Your task to perform on an android device: Go to Amazon Image 0: 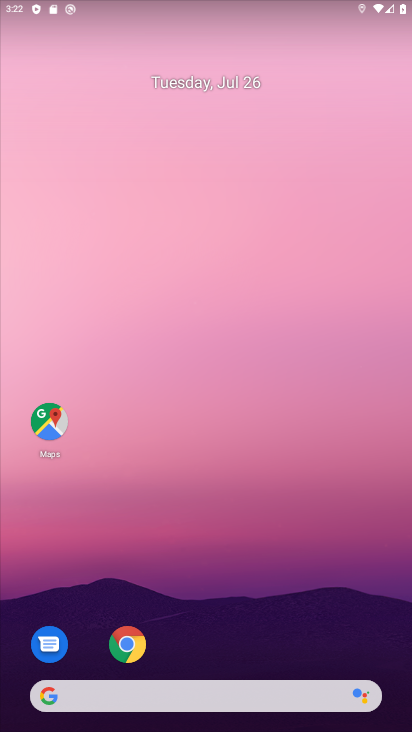
Step 0: click (301, 115)
Your task to perform on an android device: Go to Amazon Image 1: 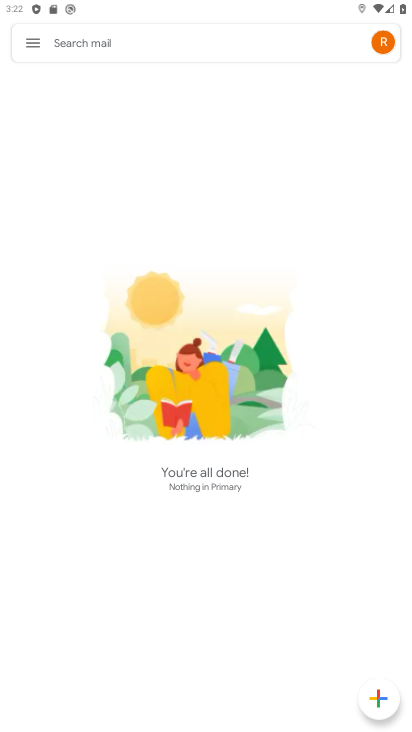
Step 1: drag from (193, 577) to (249, 243)
Your task to perform on an android device: Go to Amazon Image 2: 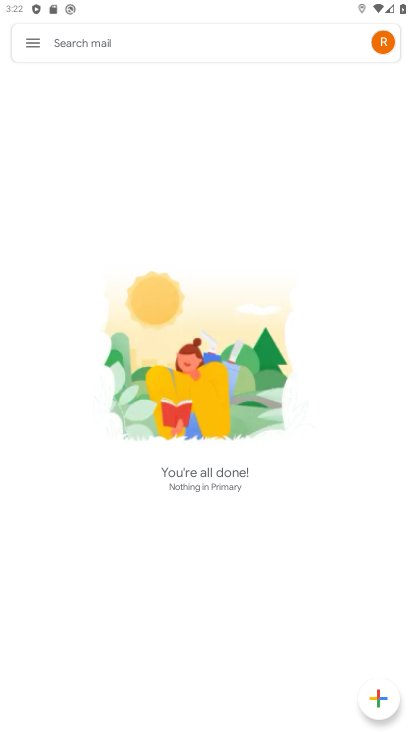
Step 2: press home button
Your task to perform on an android device: Go to Amazon Image 3: 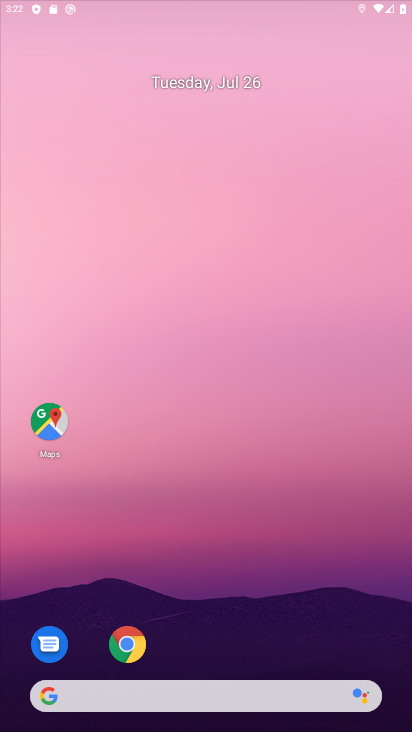
Step 3: drag from (197, 558) to (356, 11)
Your task to perform on an android device: Go to Amazon Image 4: 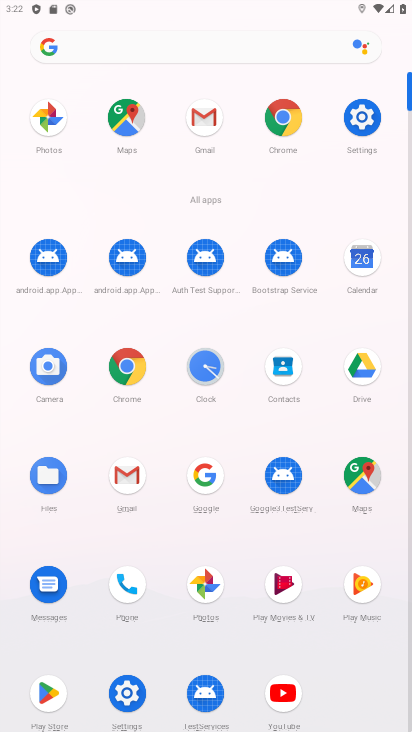
Step 4: click (277, 118)
Your task to perform on an android device: Go to Amazon Image 5: 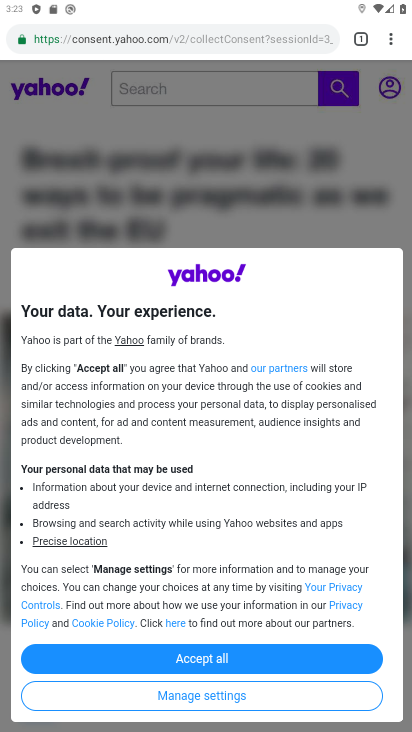
Step 5: click (267, 33)
Your task to perform on an android device: Go to Amazon Image 6: 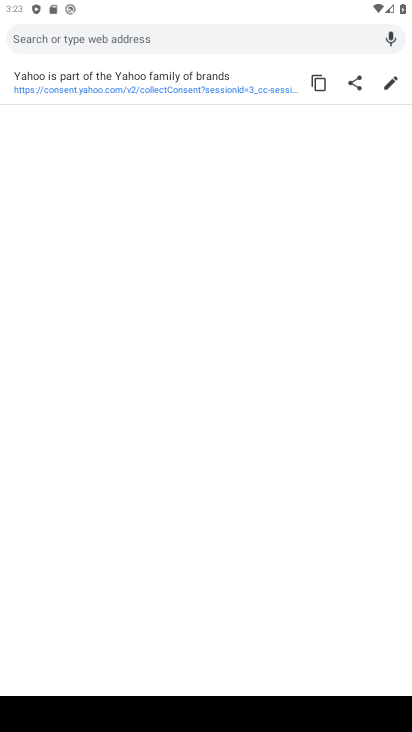
Step 6: type "amazon"
Your task to perform on an android device: Go to Amazon Image 7: 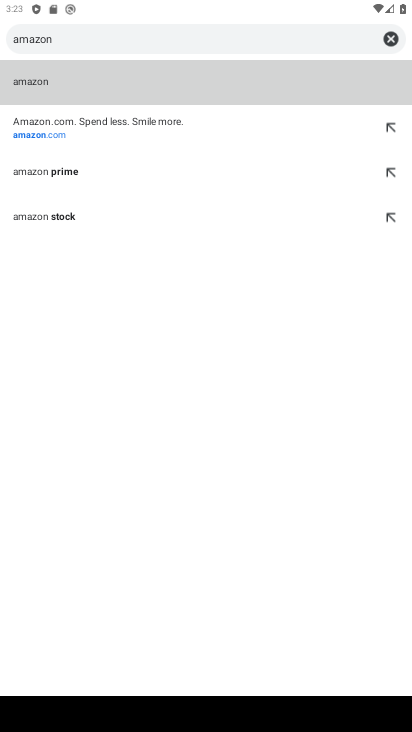
Step 7: click (51, 121)
Your task to perform on an android device: Go to Amazon Image 8: 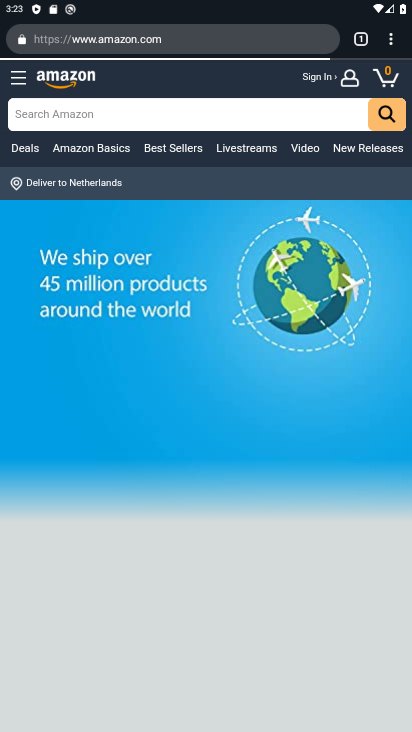
Step 8: task complete